Your task to perform on an android device: Open ESPN.com Image 0: 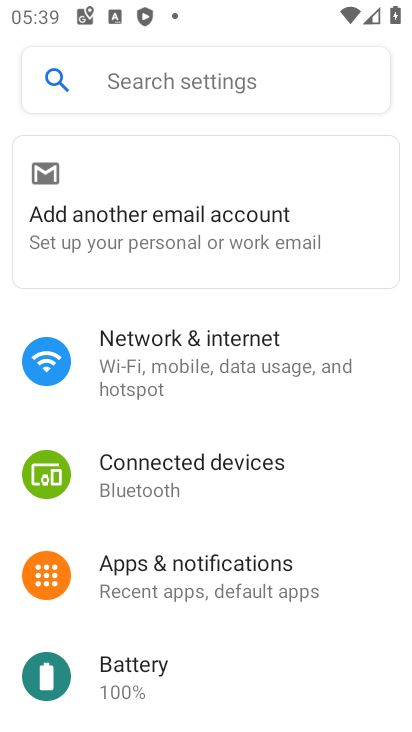
Step 0: press home button
Your task to perform on an android device: Open ESPN.com Image 1: 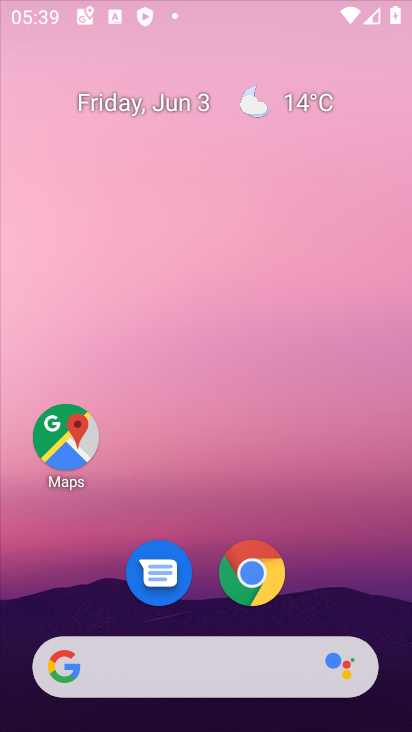
Step 1: drag from (263, 650) to (322, 44)
Your task to perform on an android device: Open ESPN.com Image 2: 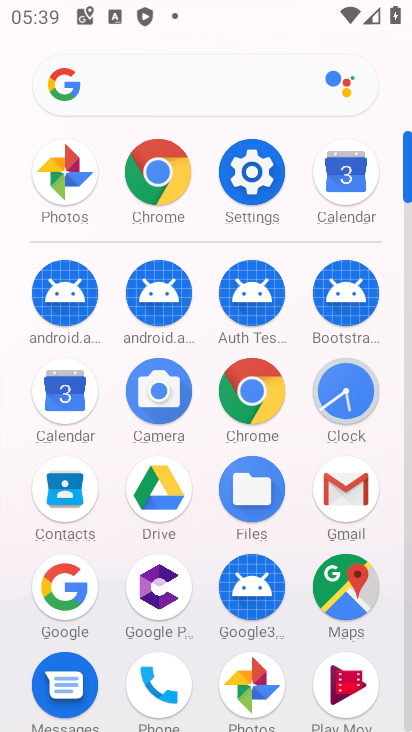
Step 2: click (268, 407)
Your task to perform on an android device: Open ESPN.com Image 3: 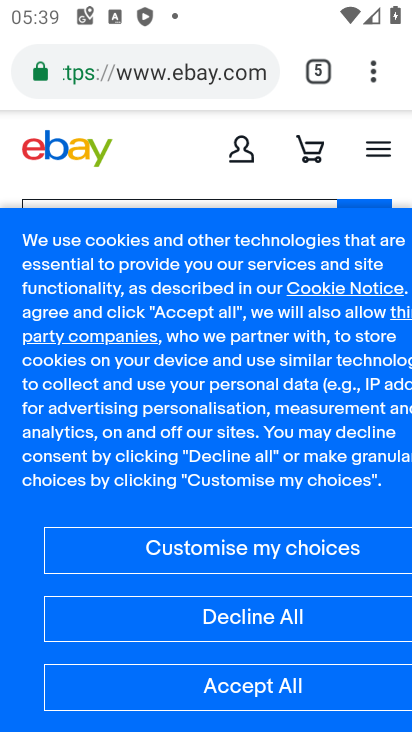
Step 3: click (194, 63)
Your task to perform on an android device: Open ESPN.com Image 4: 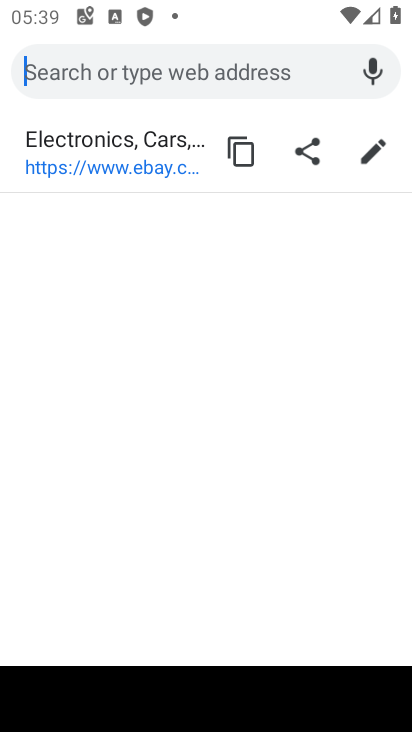
Step 4: type "espn.com"
Your task to perform on an android device: Open ESPN.com Image 5: 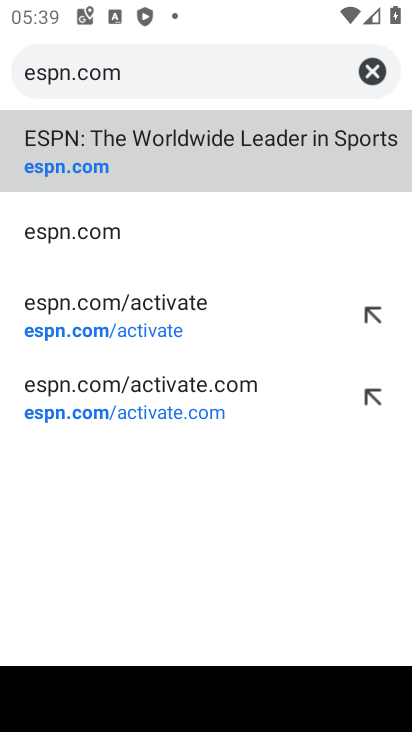
Step 5: click (181, 157)
Your task to perform on an android device: Open ESPN.com Image 6: 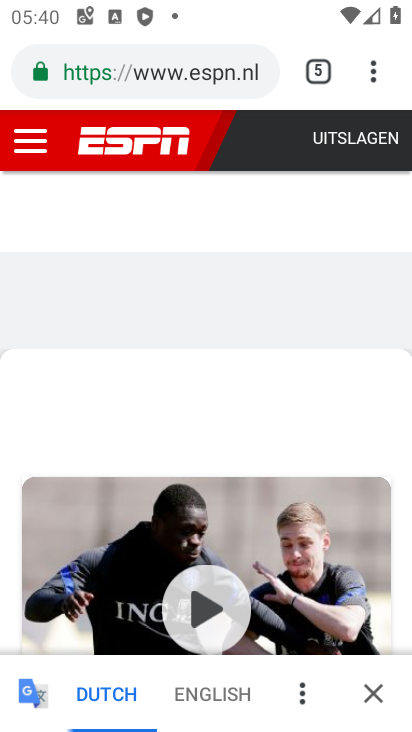
Step 6: task complete